Your task to perform on an android device: Search for pizza restaurants on Maps Image 0: 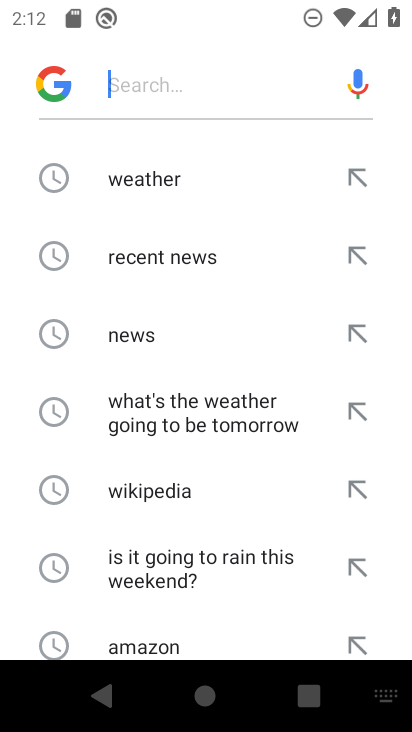
Step 0: press home button
Your task to perform on an android device: Search for pizza restaurants on Maps Image 1: 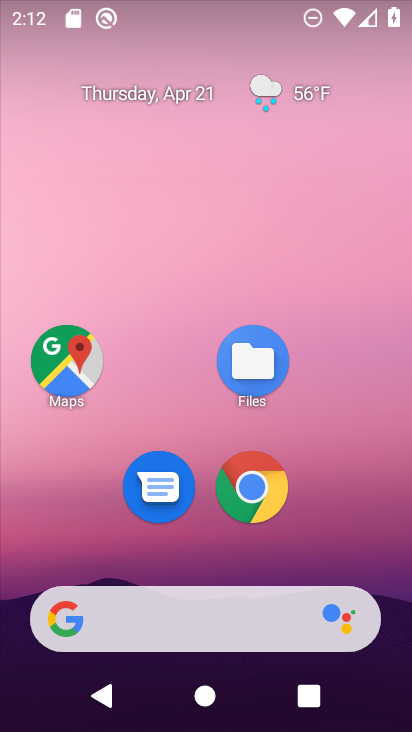
Step 1: drag from (361, 527) to (355, 122)
Your task to perform on an android device: Search for pizza restaurants on Maps Image 2: 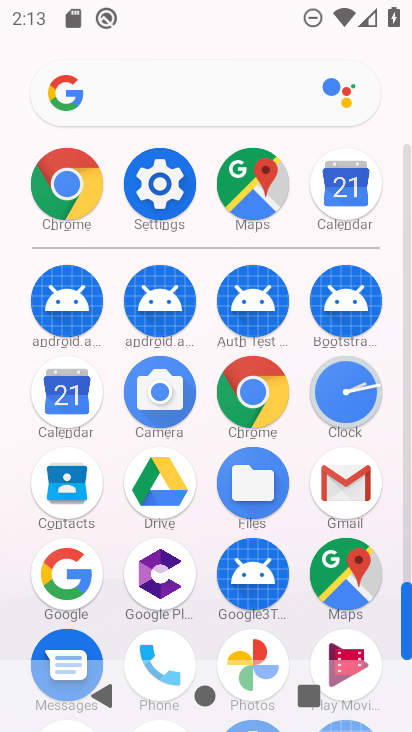
Step 2: click (340, 584)
Your task to perform on an android device: Search for pizza restaurants on Maps Image 3: 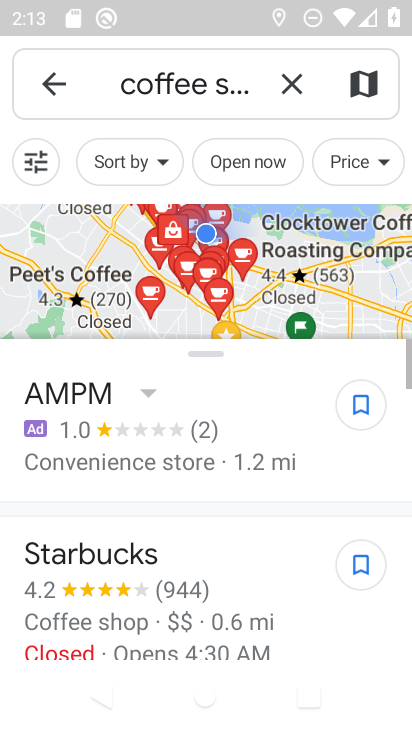
Step 3: click (299, 74)
Your task to perform on an android device: Search for pizza restaurants on Maps Image 4: 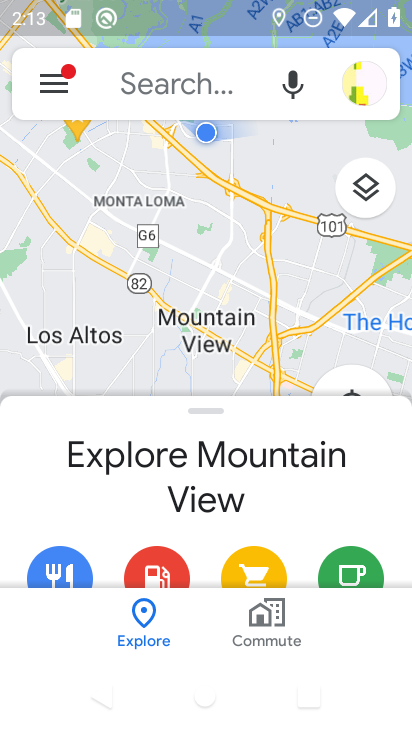
Step 4: click (206, 97)
Your task to perform on an android device: Search for pizza restaurants on Maps Image 5: 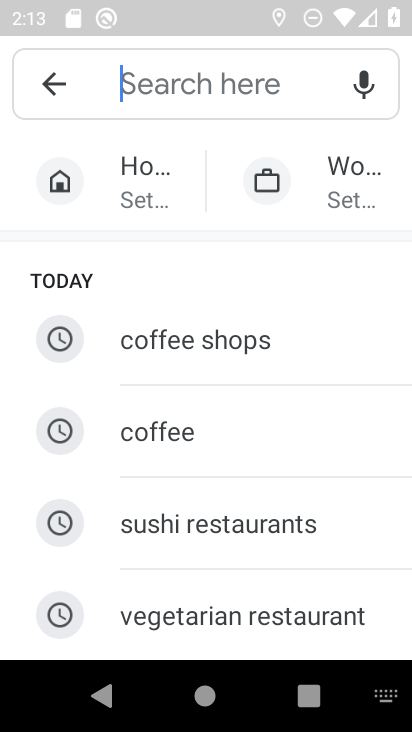
Step 5: type "pizza restaurants"
Your task to perform on an android device: Search for pizza restaurants on Maps Image 6: 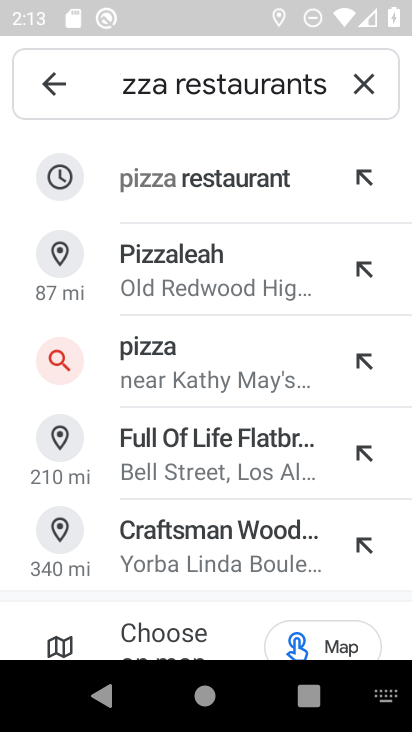
Step 6: click (231, 186)
Your task to perform on an android device: Search for pizza restaurants on Maps Image 7: 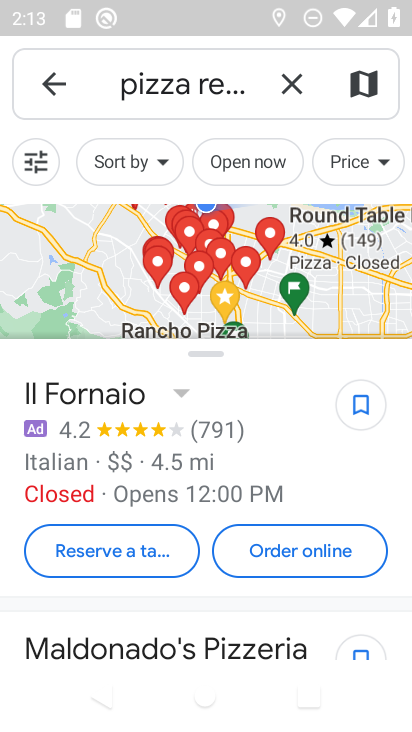
Step 7: task complete